Your task to perform on an android device: Play the last video I watched on Youtube Image 0: 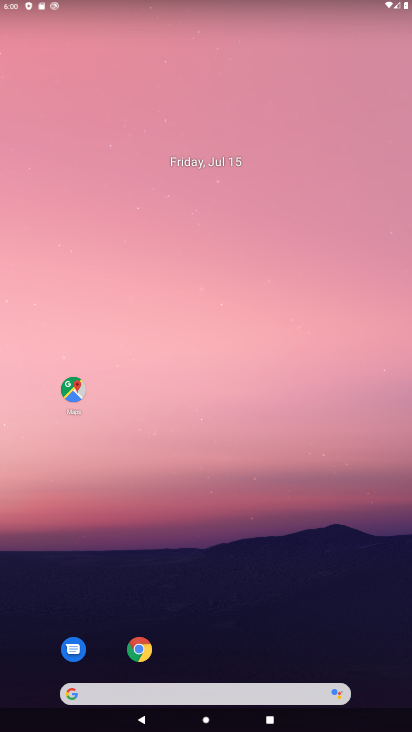
Step 0: drag from (234, 592) to (221, 7)
Your task to perform on an android device: Play the last video I watched on Youtube Image 1: 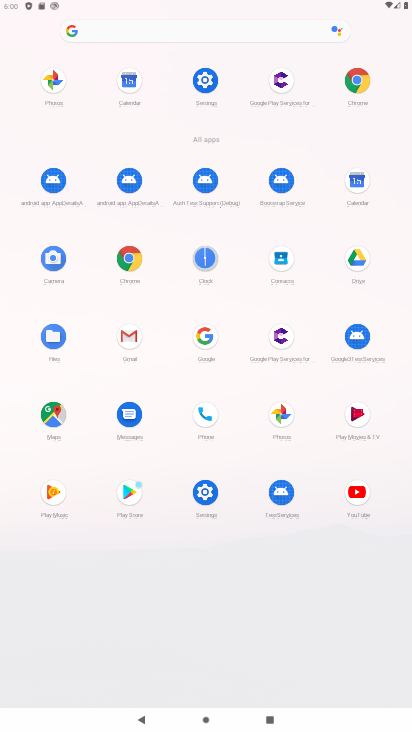
Step 1: click (351, 495)
Your task to perform on an android device: Play the last video I watched on Youtube Image 2: 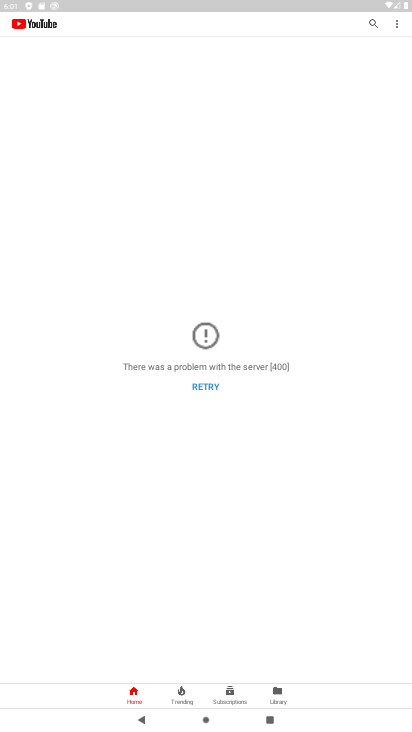
Step 2: click (201, 384)
Your task to perform on an android device: Play the last video I watched on Youtube Image 3: 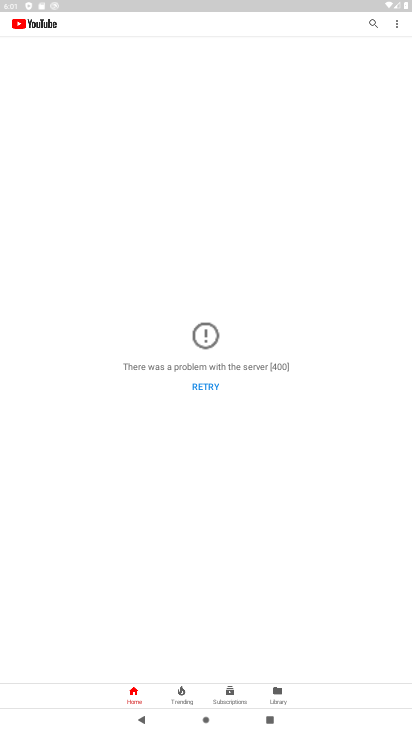
Step 3: task complete